Your task to perform on an android device: set default search engine in the chrome app Image 0: 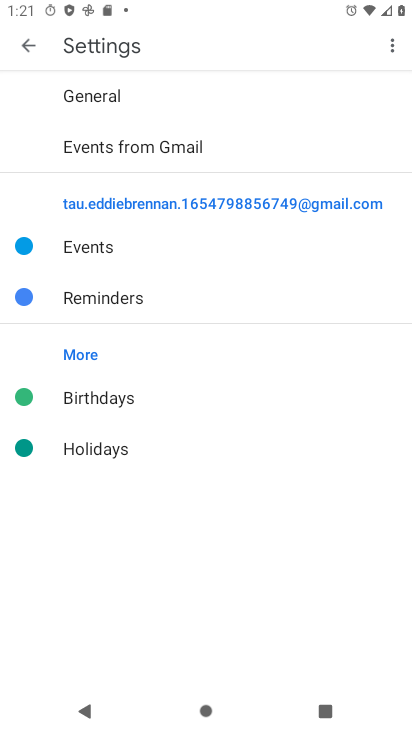
Step 0: press home button
Your task to perform on an android device: set default search engine in the chrome app Image 1: 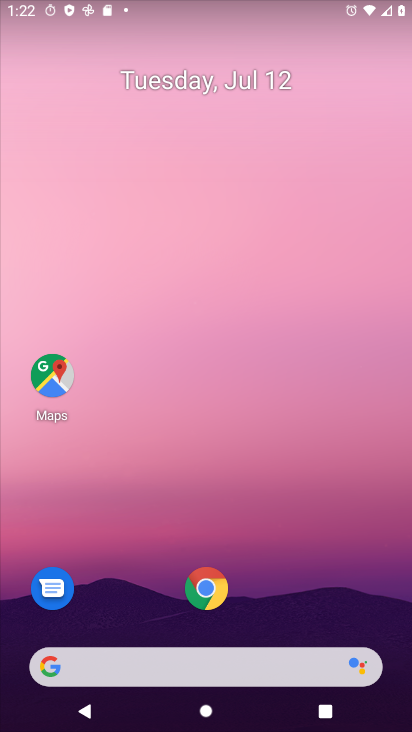
Step 1: click (211, 581)
Your task to perform on an android device: set default search engine in the chrome app Image 2: 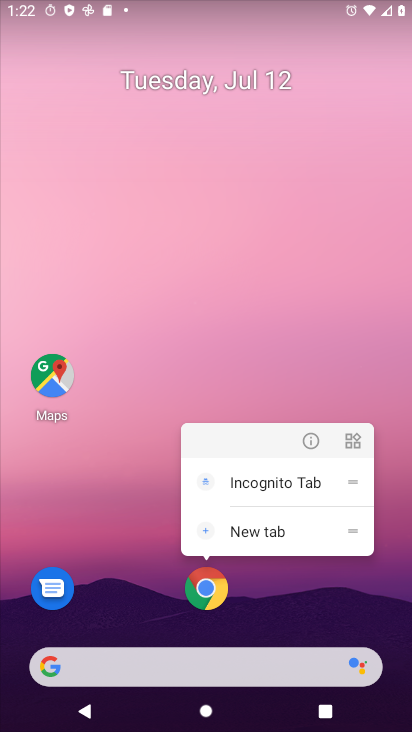
Step 2: click (214, 585)
Your task to perform on an android device: set default search engine in the chrome app Image 3: 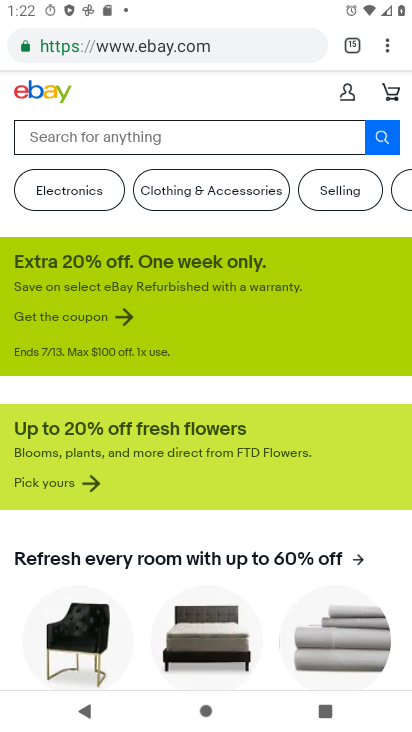
Step 3: drag from (385, 42) to (266, 550)
Your task to perform on an android device: set default search engine in the chrome app Image 4: 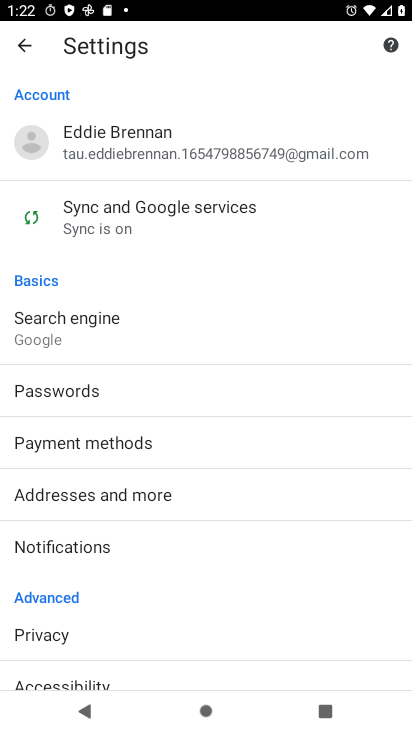
Step 4: click (73, 341)
Your task to perform on an android device: set default search engine in the chrome app Image 5: 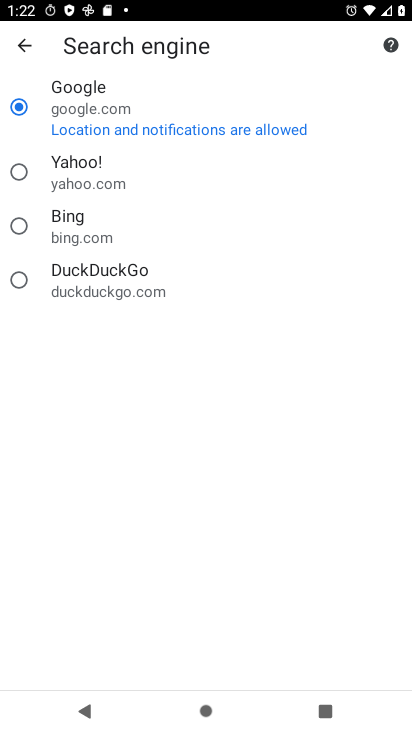
Step 5: click (19, 171)
Your task to perform on an android device: set default search engine in the chrome app Image 6: 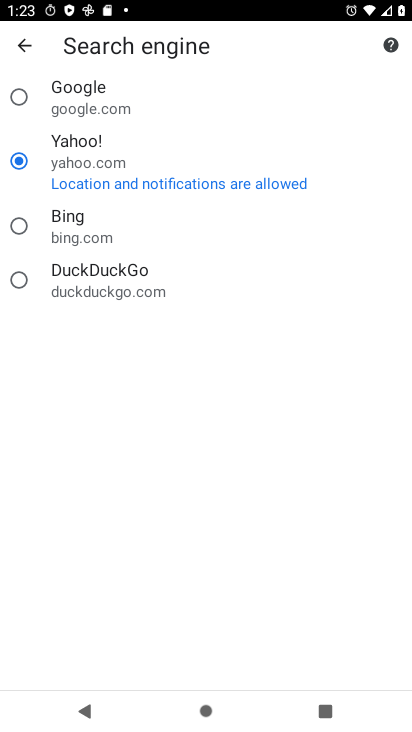
Step 6: task complete